Your task to perform on an android device: Open Google Chrome and open the bookmarks view Image 0: 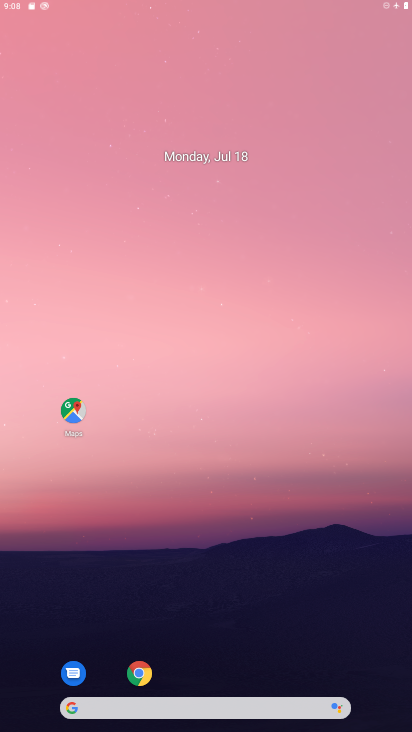
Step 0: press home button
Your task to perform on an android device: Open Google Chrome and open the bookmarks view Image 1: 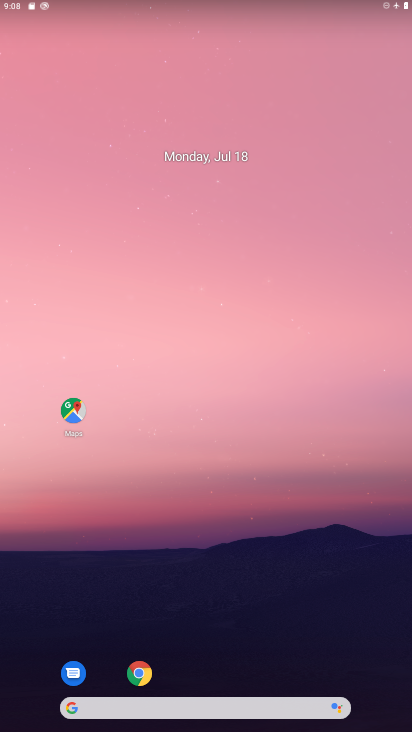
Step 1: drag from (229, 683) to (4, 19)
Your task to perform on an android device: Open Google Chrome and open the bookmarks view Image 2: 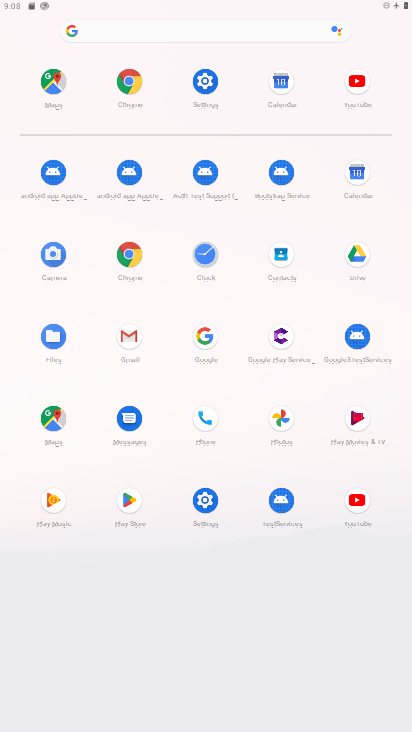
Step 2: click (125, 84)
Your task to perform on an android device: Open Google Chrome and open the bookmarks view Image 3: 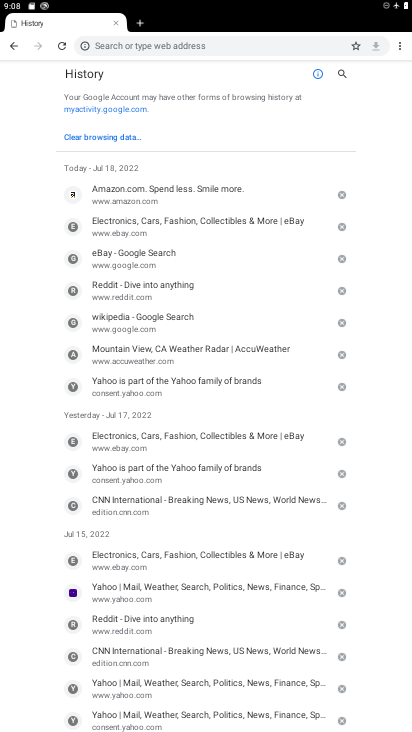
Step 3: click (11, 45)
Your task to perform on an android device: Open Google Chrome and open the bookmarks view Image 4: 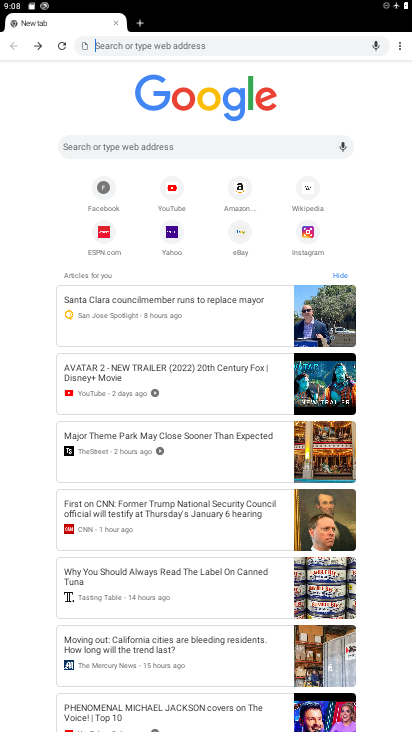
Step 4: task complete